Your task to perform on an android device: Set the phone to "Do not disturb". Image 0: 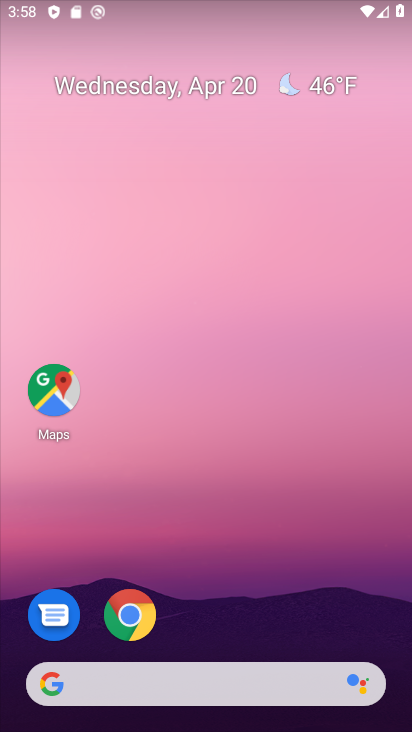
Step 0: drag from (147, 50) to (217, 490)
Your task to perform on an android device: Set the phone to "Do not disturb". Image 1: 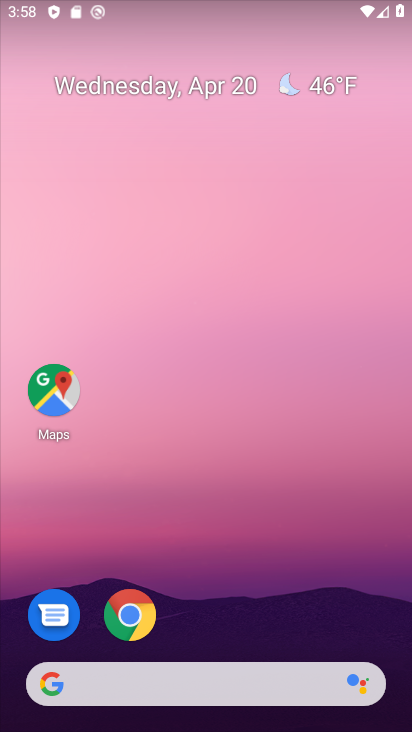
Step 1: drag from (222, 5) to (226, 588)
Your task to perform on an android device: Set the phone to "Do not disturb". Image 2: 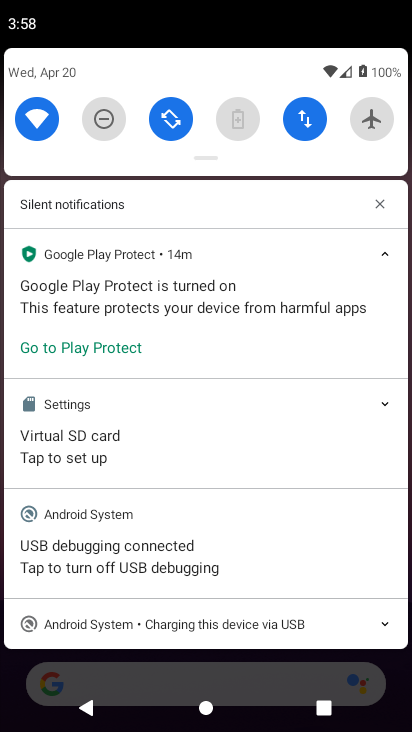
Step 2: click (94, 111)
Your task to perform on an android device: Set the phone to "Do not disturb". Image 3: 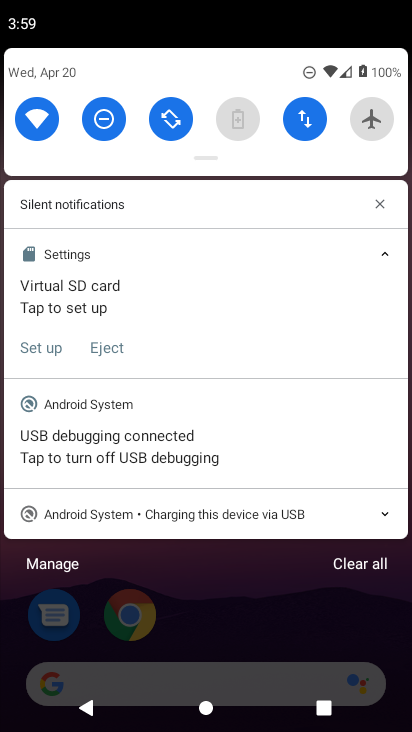
Step 3: task complete